Your task to perform on an android device: turn off wifi Image 0: 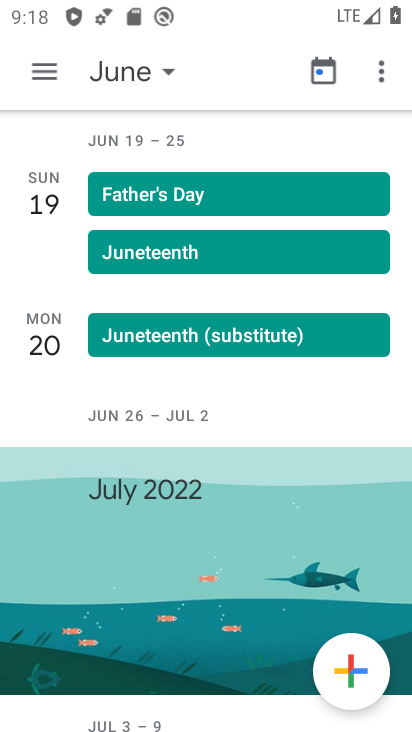
Step 0: press home button
Your task to perform on an android device: turn off wifi Image 1: 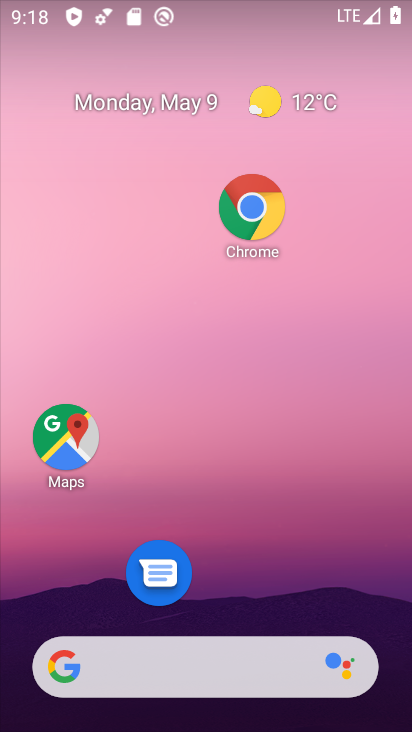
Step 1: drag from (228, 639) to (240, 31)
Your task to perform on an android device: turn off wifi Image 2: 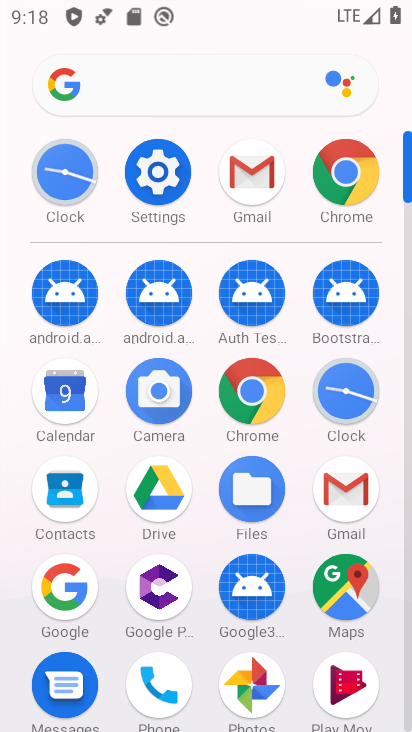
Step 2: click (173, 174)
Your task to perform on an android device: turn off wifi Image 3: 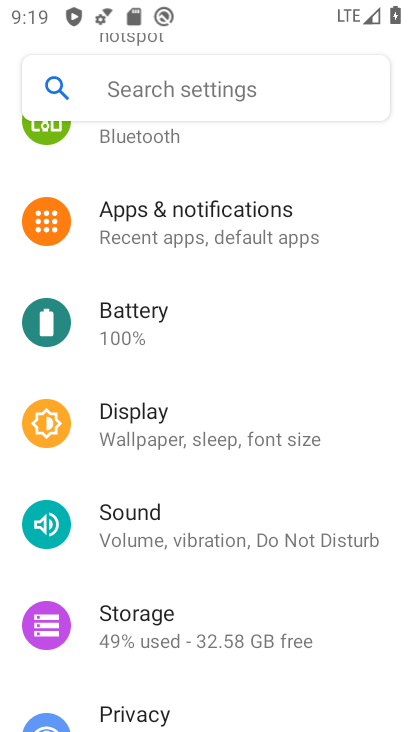
Step 3: drag from (177, 197) to (86, 605)
Your task to perform on an android device: turn off wifi Image 4: 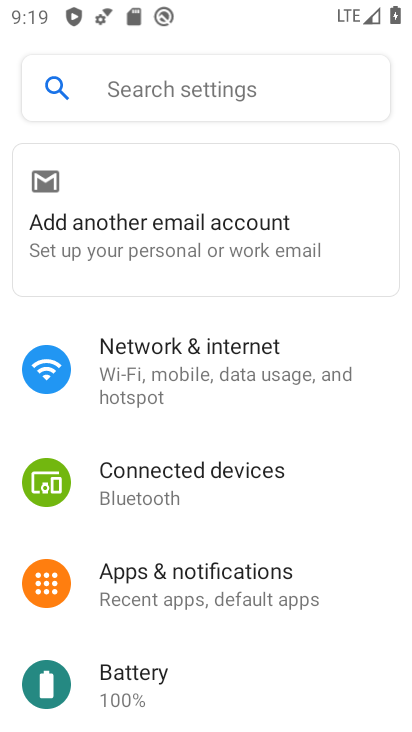
Step 4: click (278, 355)
Your task to perform on an android device: turn off wifi Image 5: 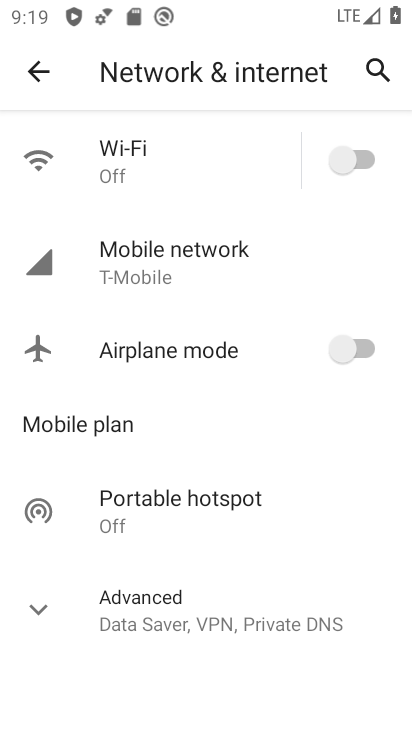
Step 5: task complete